Your task to perform on an android device: Open the Play Movies app and select the watchlist tab. Image 0: 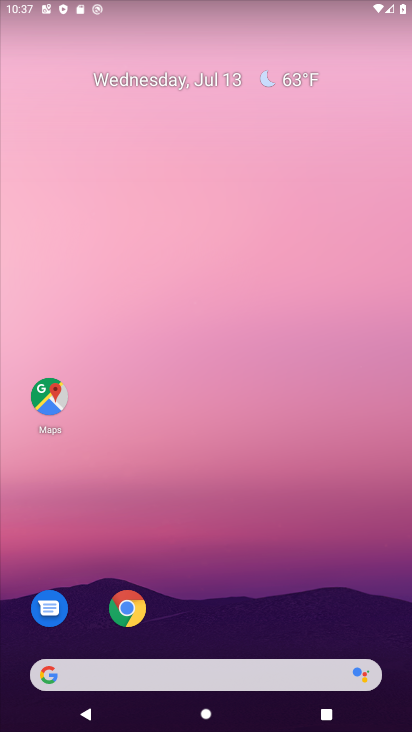
Step 0: drag from (254, 600) to (248, 258)
Your task to perform on an android device: Open the Play Movies app and select the watchlist tab. Image 1: 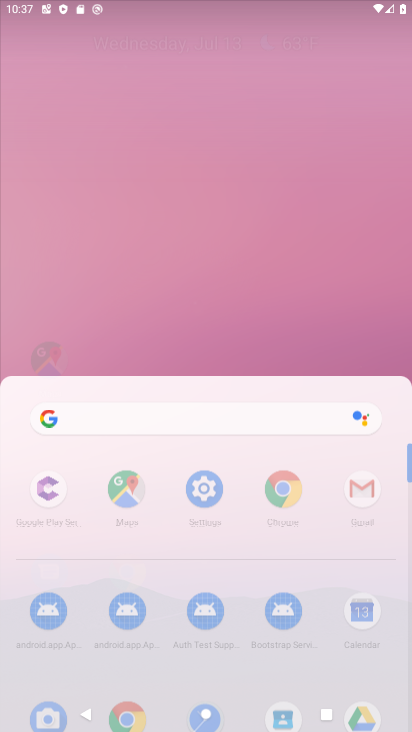
Step 1: click (252, 167)
Your task to perform on an android device: Open the Play Movies app and select the watchlist tab. Image 2: 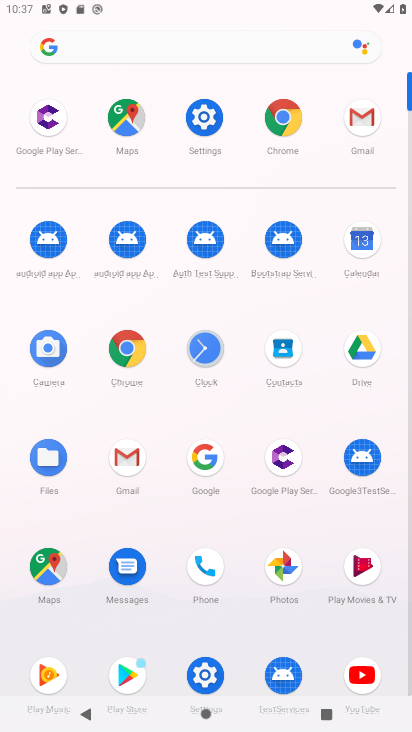
Step 2: click (359, 563)
Your task to perform on an android device: Open the Play Movies app and select the watchlist tab. Image 3: 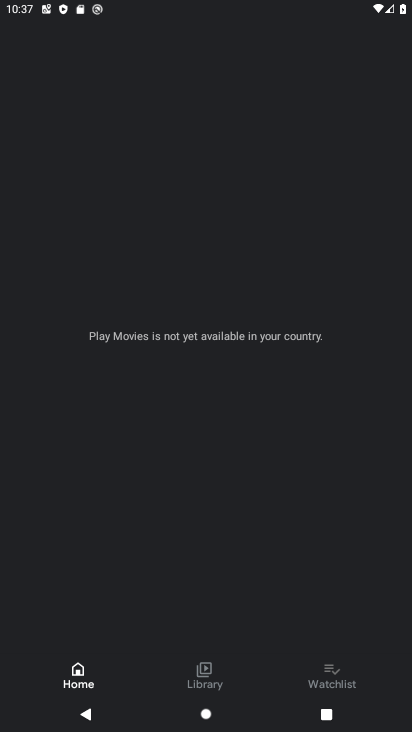
Step 3: click (335, 677)
Your task to perform on an android device: Open the Play Movies app and select the watchlist tab. Image 4: 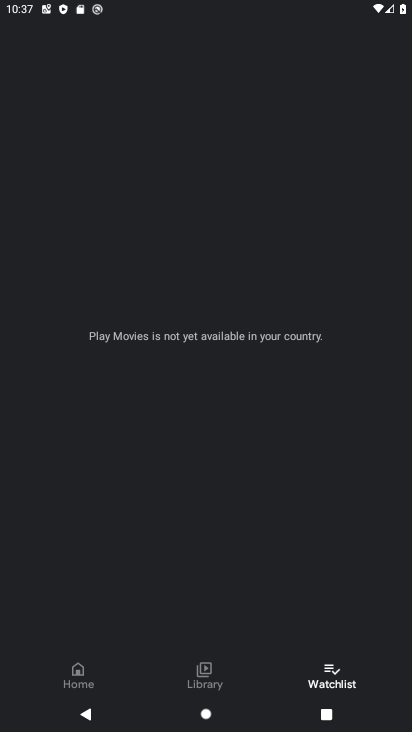
Step 4: task complete